Your task to perform on an android device: Open eBay Image 0: 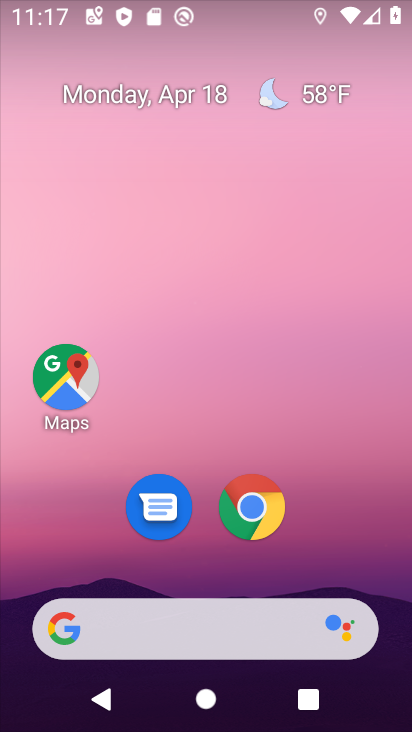
Step 0: click (255, 509)
Your task to perform on an android device: Open eBay Image 1: 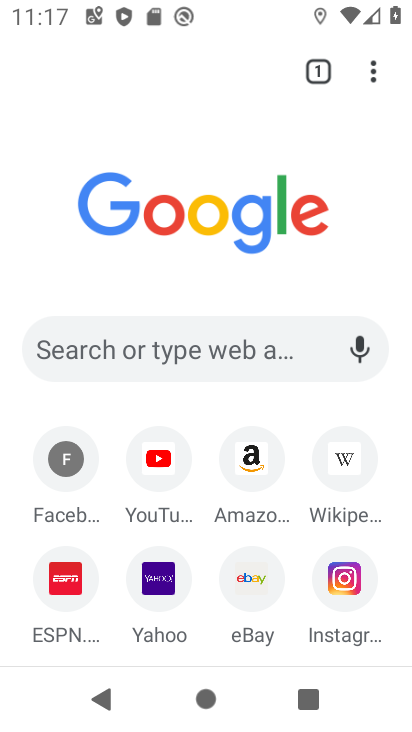
Step 1: click (195, 350)
Your task to perform on an android device: Open eBay Image 2: 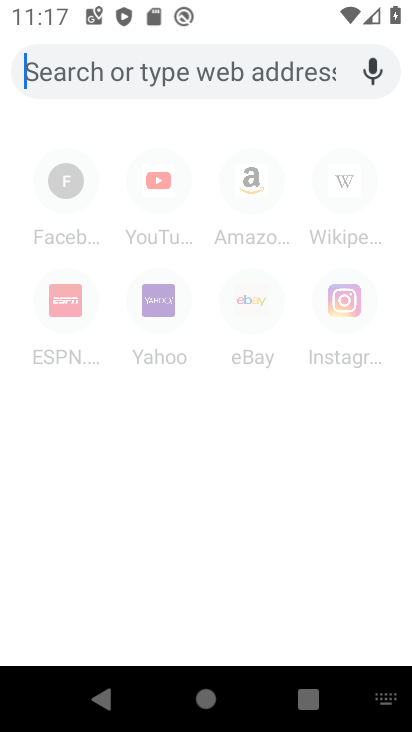
Step 2: type "eBay"
Your task to perform on an android device: Open eBay Image 3: 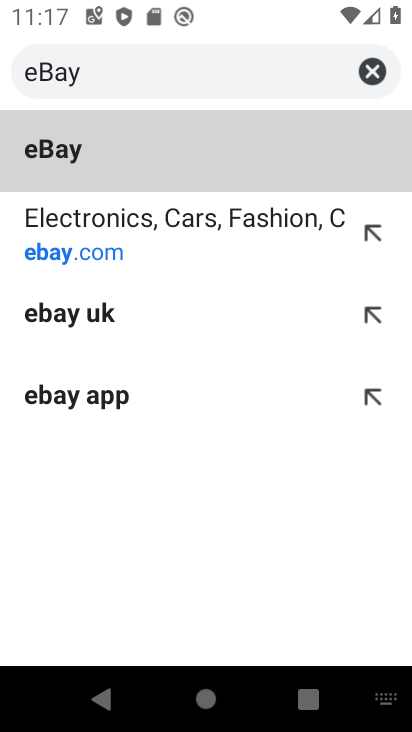
Step 3: click (135, 160)
Your task to perform on an android device: Open eBay Image 4: 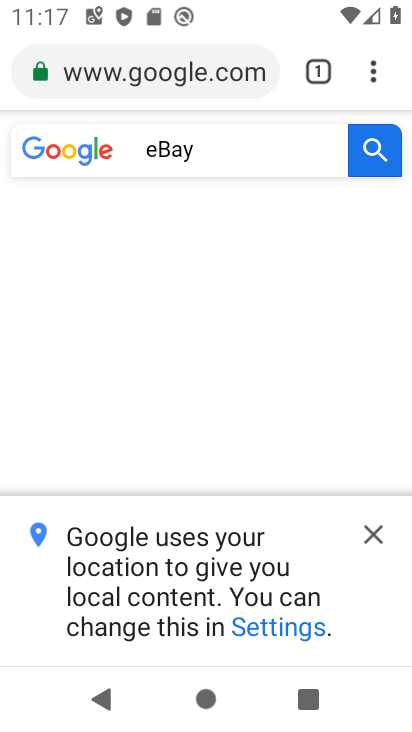
Step 4: click (374, 527)
Your task to perform on an android device: Open eBay Image 5: 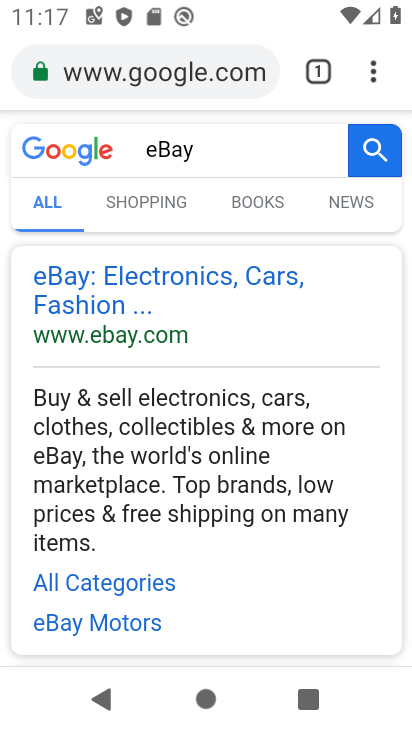
Step 5: task complete